Your task to perform on an android device: What is the capital of Italy? Image 0: 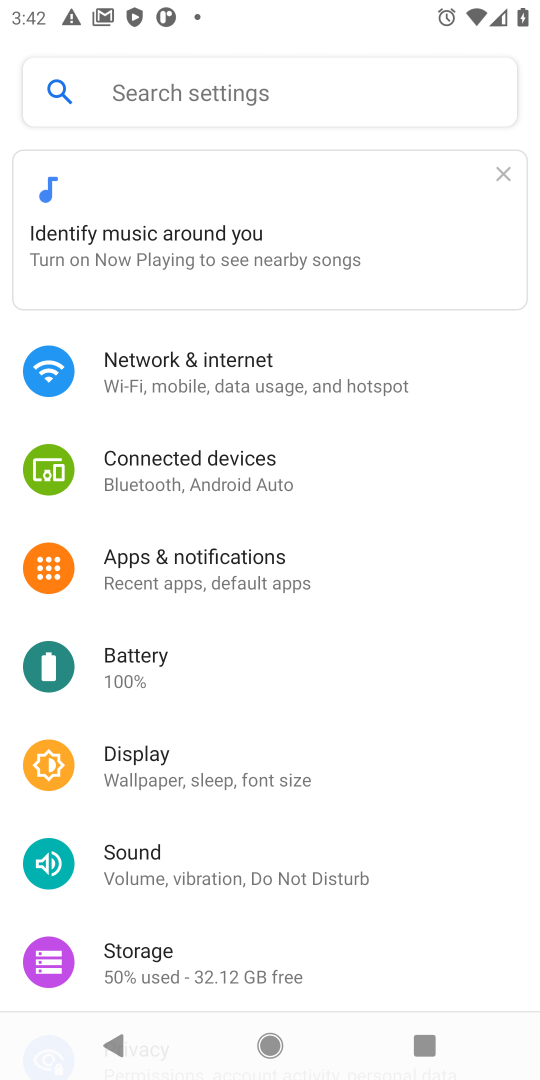
Step 0: press home button
Your task to perform on an android device: What is the capital of Italy? Image 1: 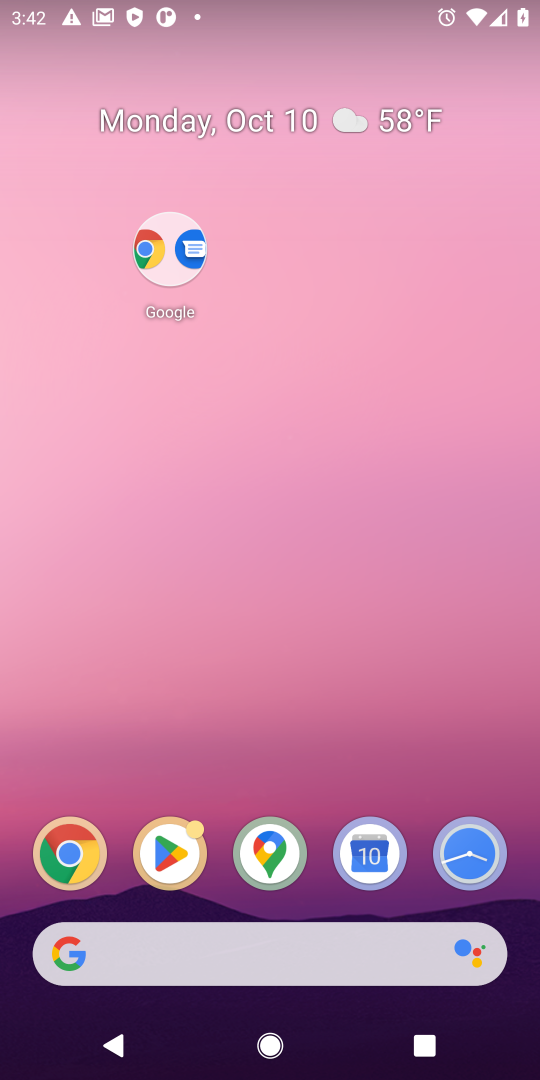
Step 1: click (59, 868)
Your task to perform on an android device: What is the capital of Italy? Image 2: 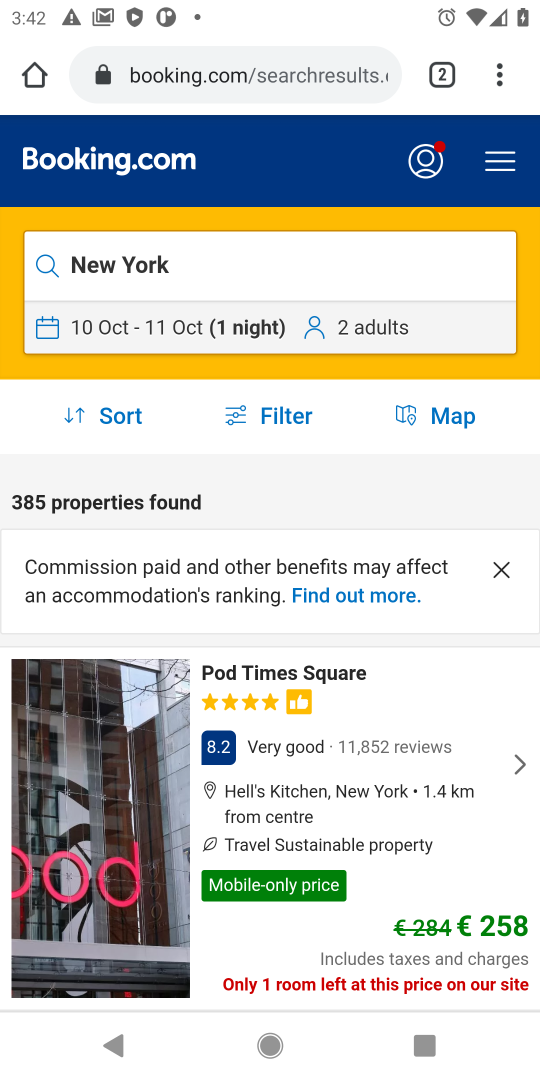
Step 2: click (247, 66)
Your task to perform on an android device: What is the capital of Italy? Image 3: 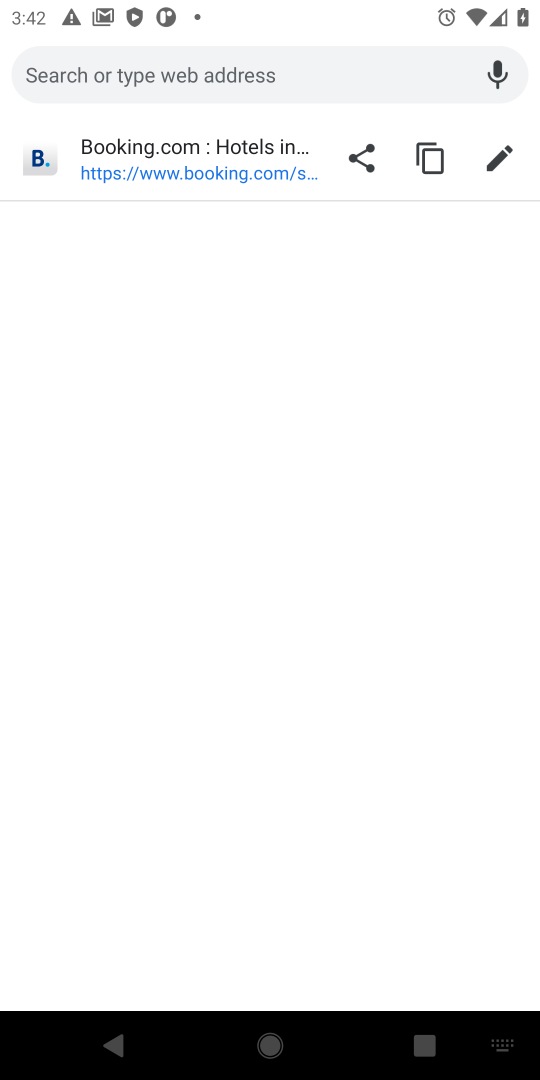
Step 3: type "capital of italy"
Your task to perform on an android device: What is the capital of Italy? Image 4: 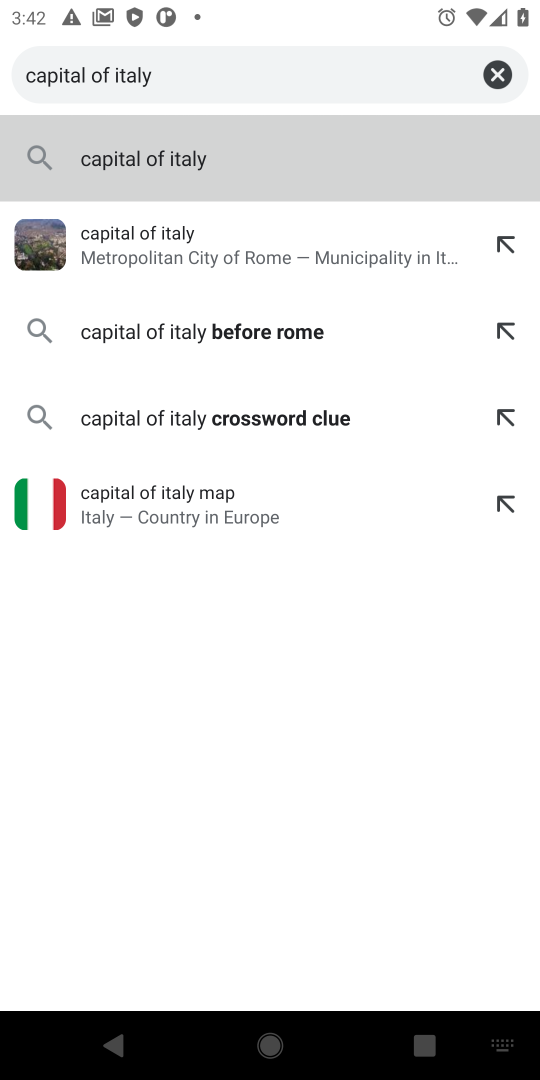
Step 4: click (230, 162)
Your task to perform on an android device: What is the capital of Italy? Image 5: 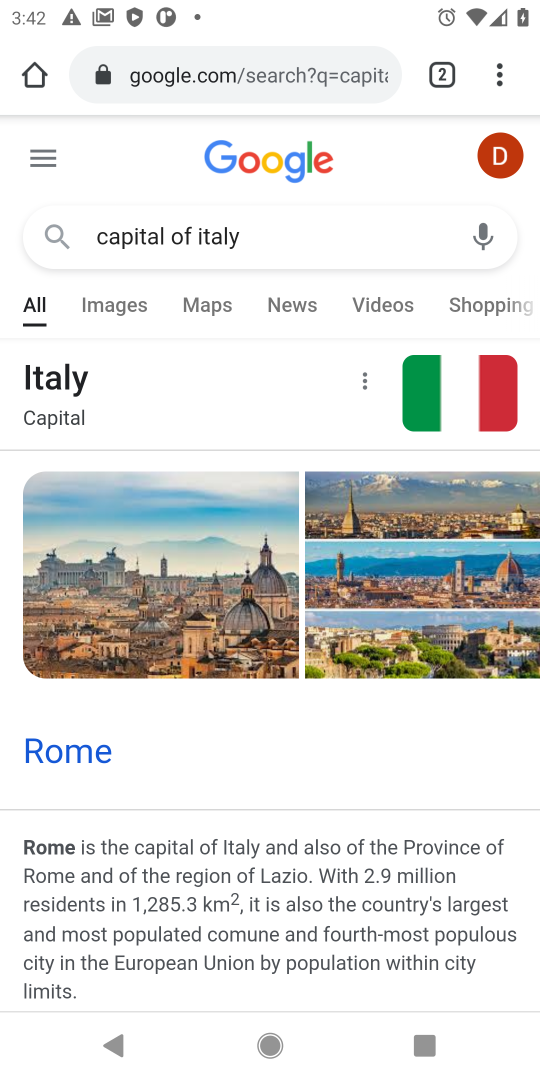
Step 5: task complete